Your task to perform on an android device: empty trash in the gmail app Image 0: 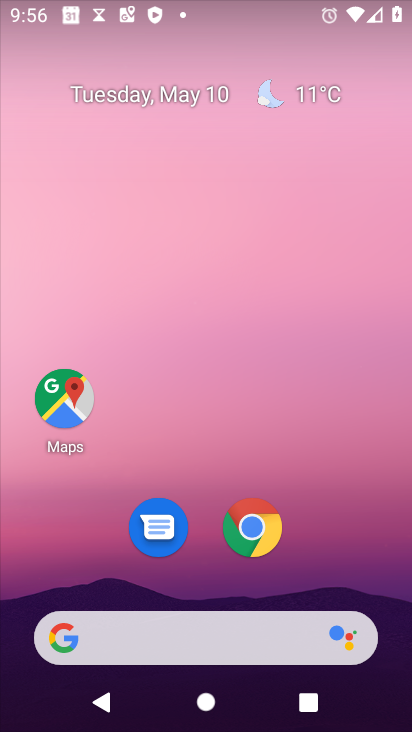
Step 0: drag from (366, 532) to (348, 32)
Your task to perform on an android device: empty trash in the gmail app Image 1: 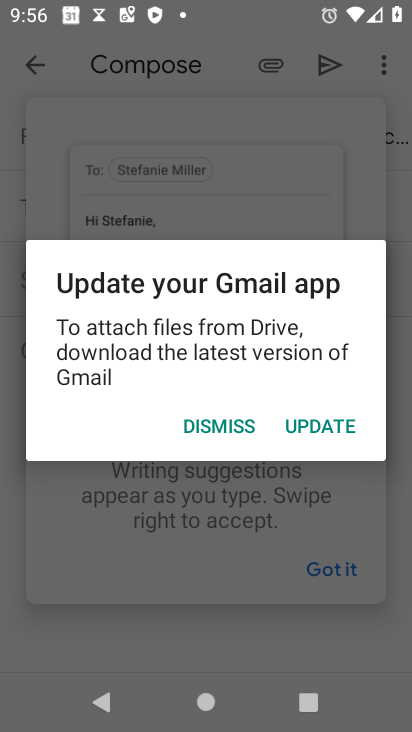
Step 1: press home button
Your task to perform on an android device: empty trash in the gmail app Image 2: 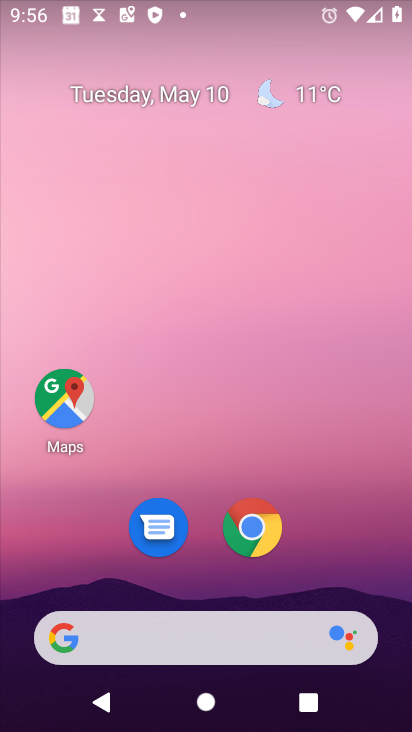
Step 2: drag from (340, 497) to (272, 93)
Your task to perform on an android device: empty trash in the gmail app Image 3: 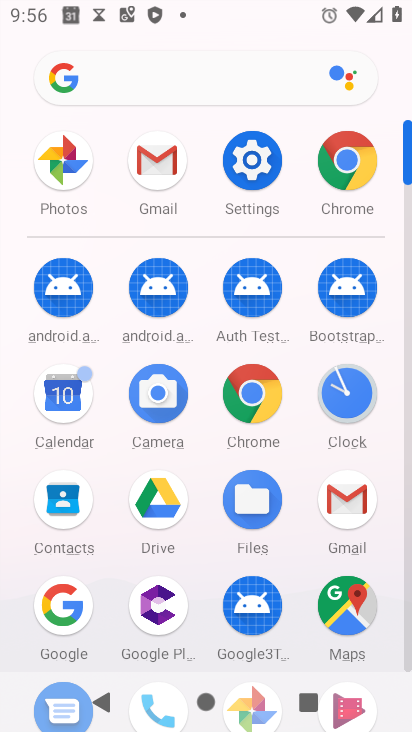
Step 3: click (343, 505)
Your task to perform on an android device: empty trash in the gmail app Image 4: 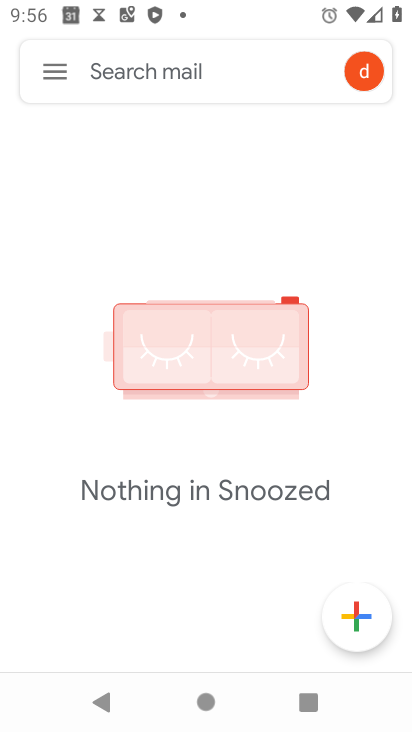
Step 4: click (48, 70)
Your task to perform on an android device: empty trash in the gmail app Image 5: 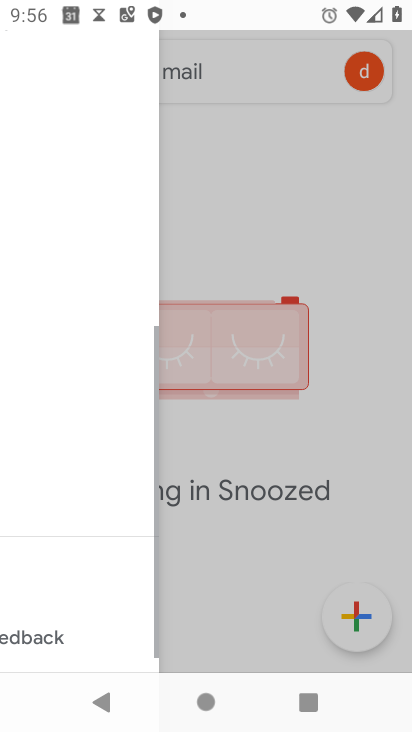
Step 5: click (48, 70)
Your task to perform on an android device: empty trash in the gmail app Image 6: 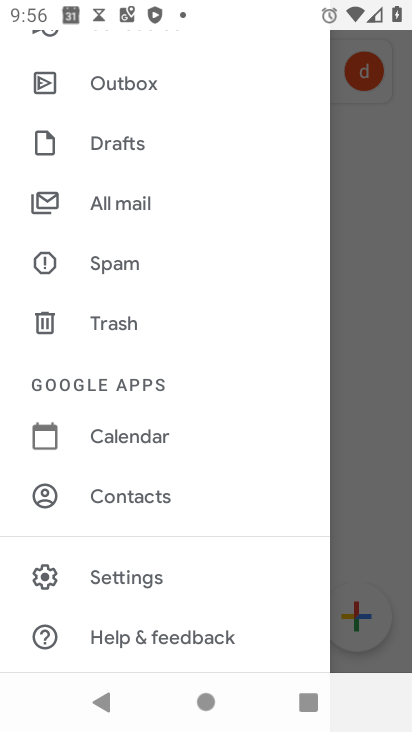
Step 6: click (111, 329)
Your task to perform on an android device: empty trash in the gmail app Image 7: 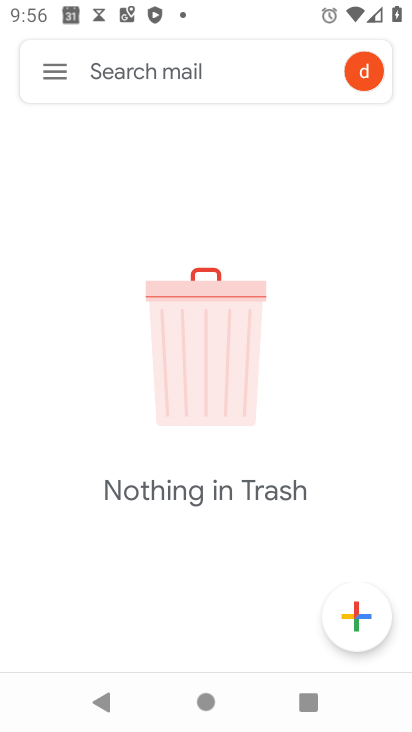
Step 7: task complete